Your task to perform on an android device: Go to privacy settings Image 0: 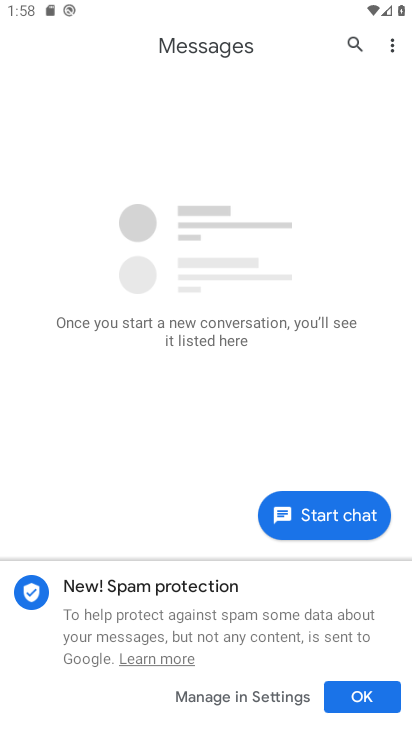
Step 0: press home button
Your task to perform on an android device: Go to privacy settings Image 1: 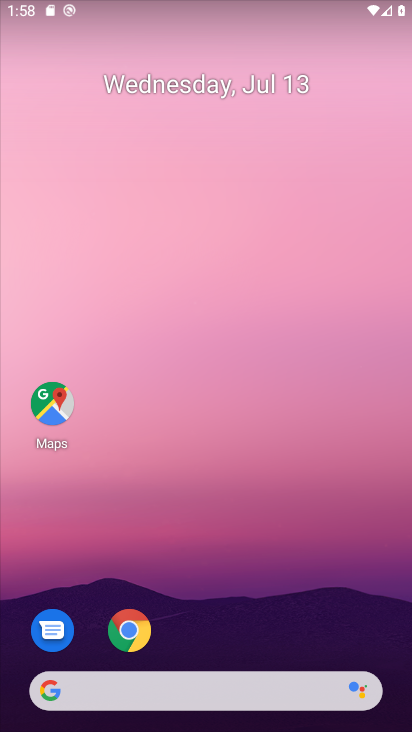
Step 1: click (129, 643)
Your task to perform on an android device: Go to privacy settings Image 2: 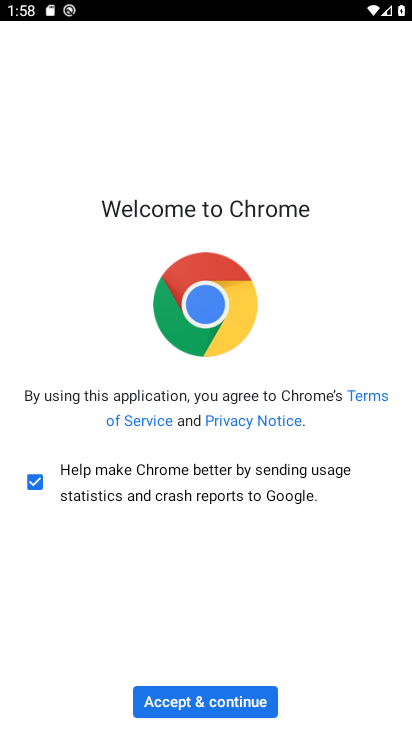
Step 2: click (181, 701)
Your task to perform on an android device: Go to privacy settings Image 3: 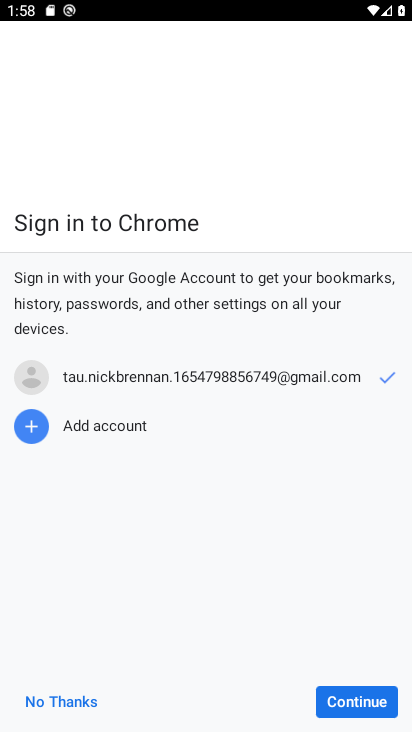
Step 3: click (327, 699)
Your task to perform on an android device: Go to privacy settings Image 4: 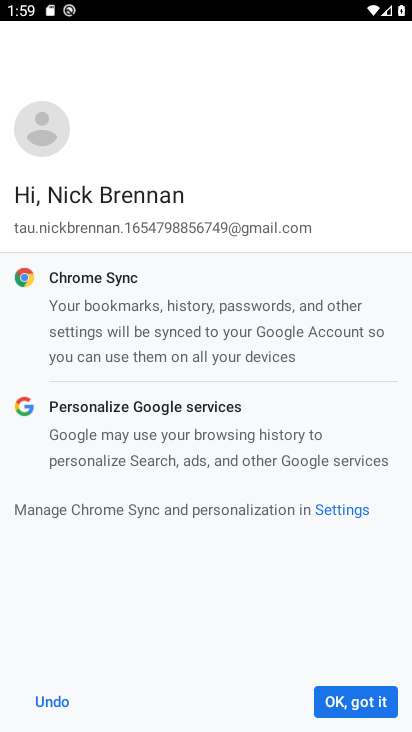
Step 4: click (327, 699)
Your task to perform on an android device: Go to privacy settings Image 5: 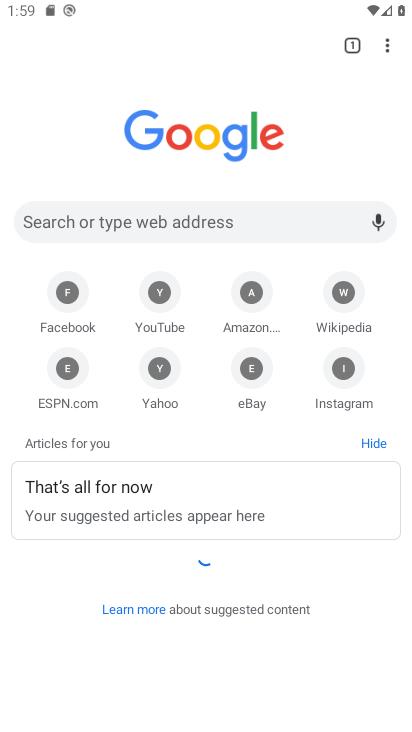
Step 5: drag from (393, 53) to (262, 370)
Your task to perform on an android device: Go to privacy settings Image 6: 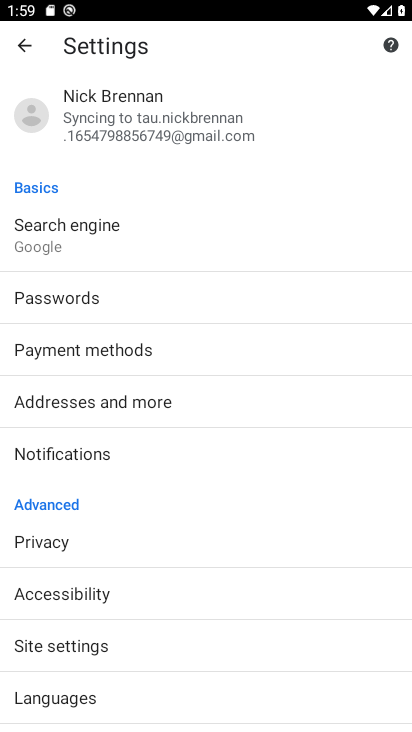
Step 6: click (75, 552)
Your task to perform on an android device: Go to privacy settings Image 7: 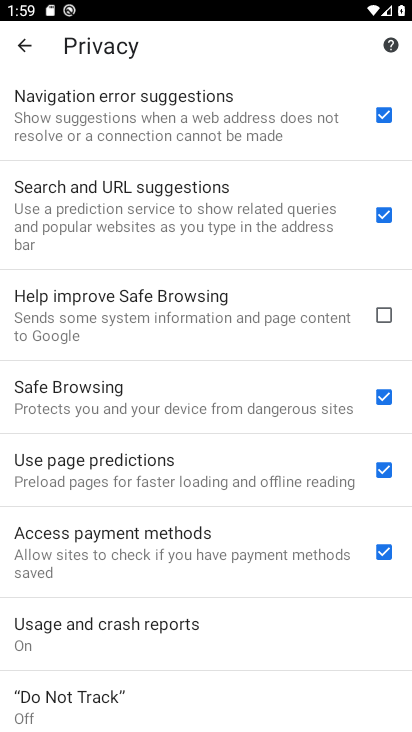
Step 7: task complete